Your task to perform on an android device: Open Reddit.com Image 0: 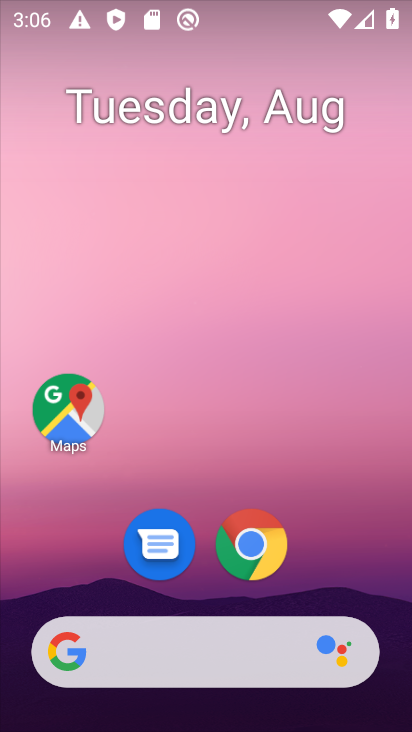
Step 0: drag from (396, 610) to (148, 28)
Your task to perform on an android device: Open Reddit.com Image 1: 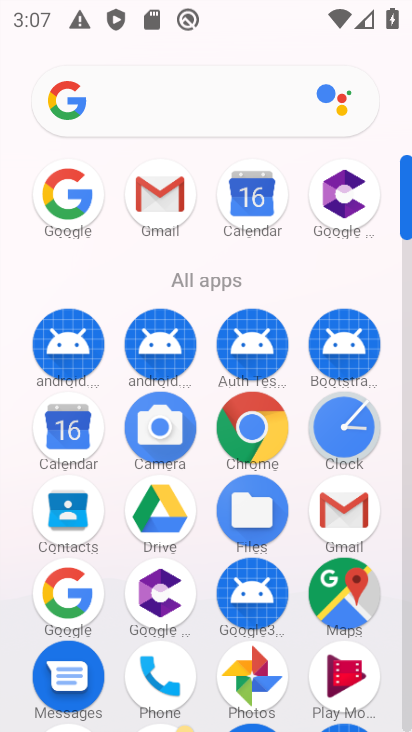
Step 1: click (78, 583)
Your task to perform on an android device: Open Reddit.com Image 2: 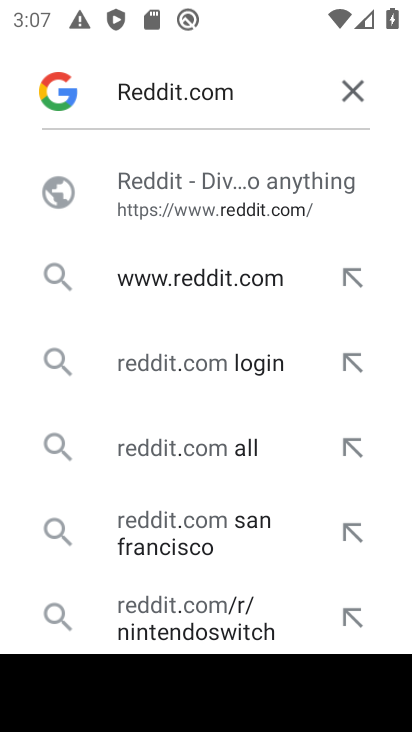
Step 2: click (186, 187)
Your task to perform on an android device: Open Reddit.com Image 3: 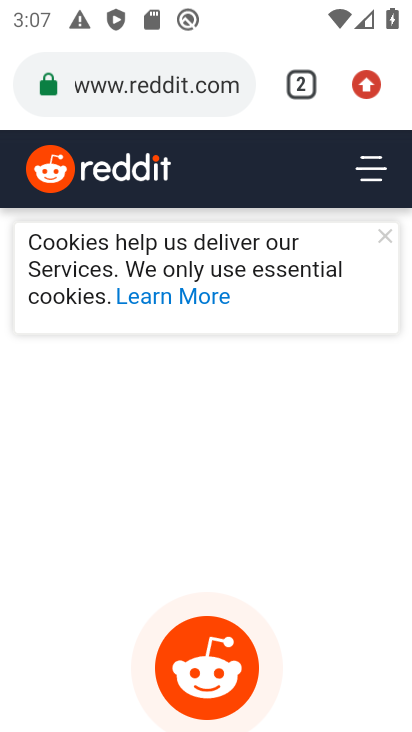
Step 3: task complete